Your task to perform on an android device: Open calendar and show me the fourth week of next month Image 0: 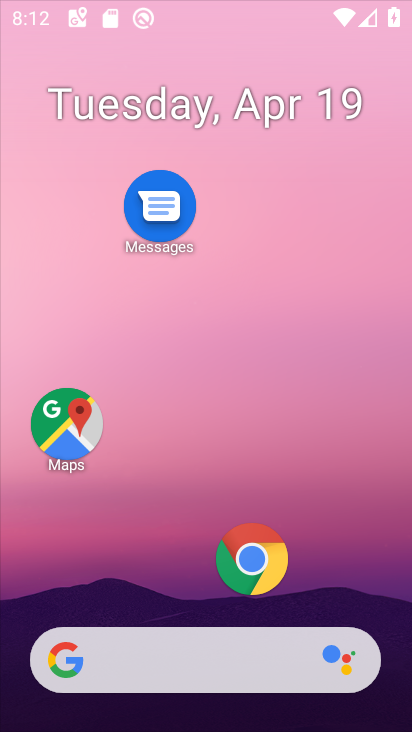
Step 0: drag from (189, 377) to (163, 185)
Your task to perform on an android device: Open calendar and show me the fourth week of next month Image 1: 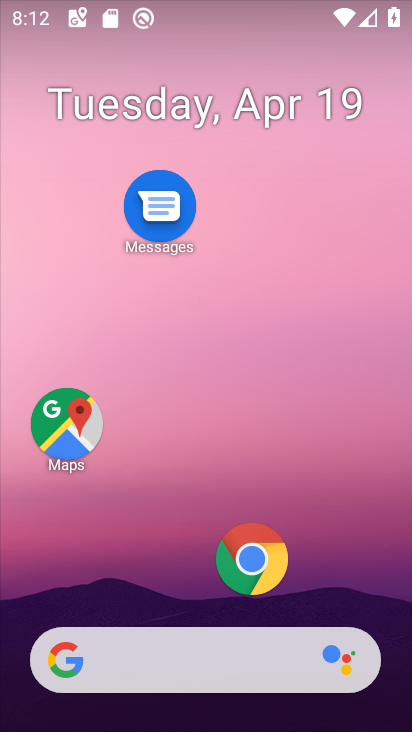
Step 1: drag from (261, 646) to (206, 248)
Your task to perform on an android device: Open calendar and show me the fourth week of next month Image 2: 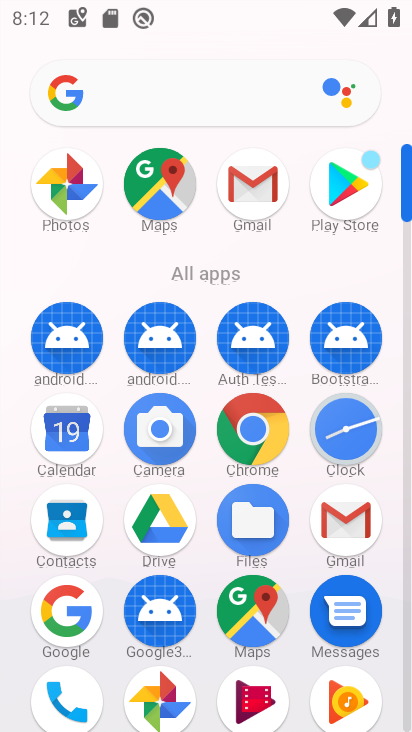
Step 2: click (73, 436)
Your task to perform on an android device: Open calendar and show me the fourth week of next month Image 3: 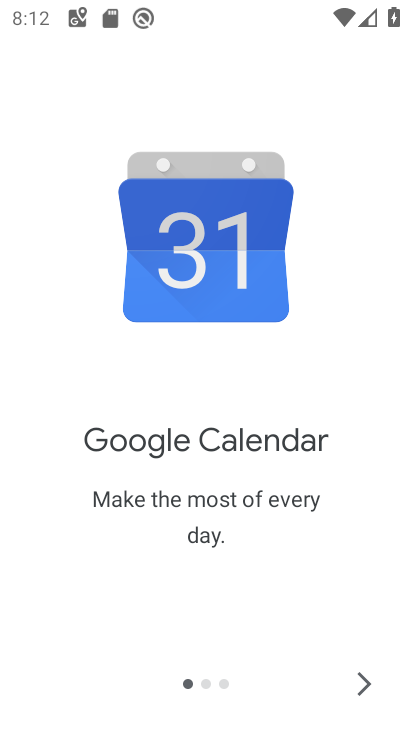
Step 3: click (362, 680)
Your task to perform on an android device: Open calendar and show me the fourth week of next month Image 4: 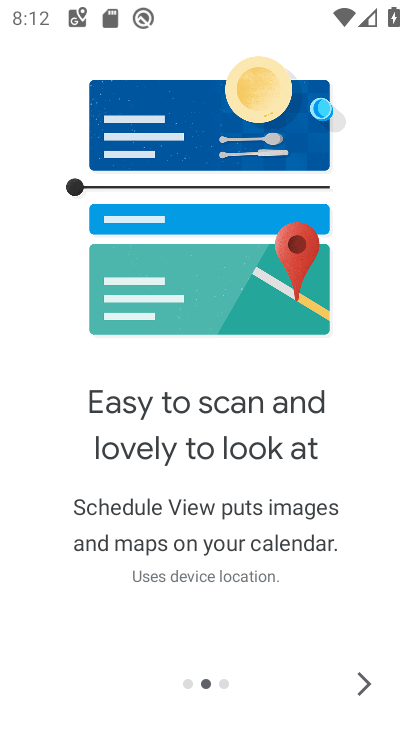
Step 4: click (362, 680)
Your task to perform on an android device: Open calendar and show me the fourth week of next month Image 5: 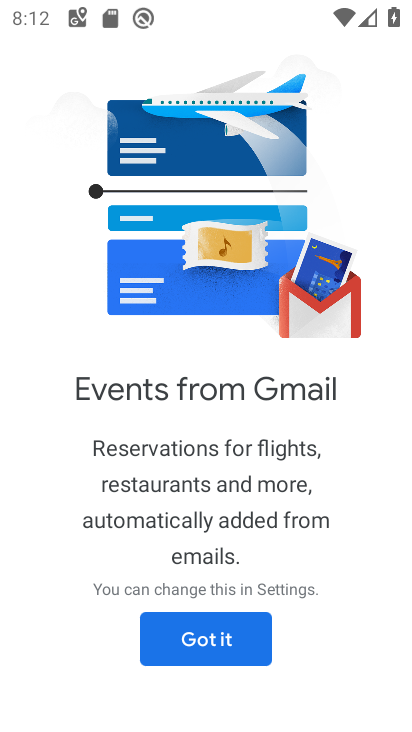
Step 5: click (213, 648)
Your task to perform on an android device: Open calendar and show me the fourth week of next month Image 6: 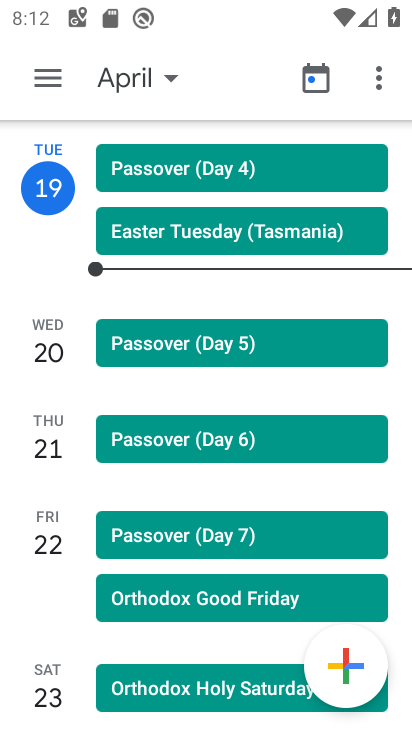
Step 6: click (50, 90)
Your task to perform on an android device: Open calendar and show me the fourth week of next month Image 7: 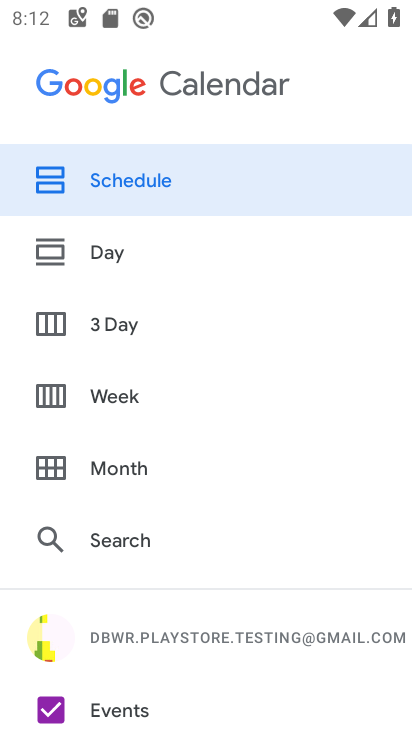
Step 7: click (149, 464)
Your task to perform on an android device: Open calendar and show me the fourth week of next month Image 8: 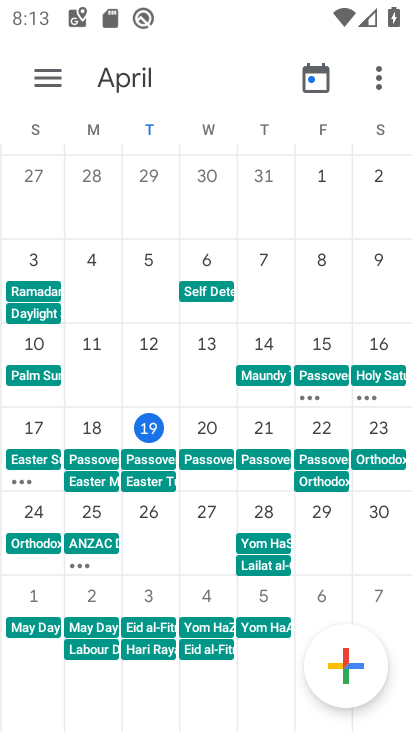
Step 8: task complete